Your task to perform on an android device: Add razer blade to the cart on newegg.com Image 0: 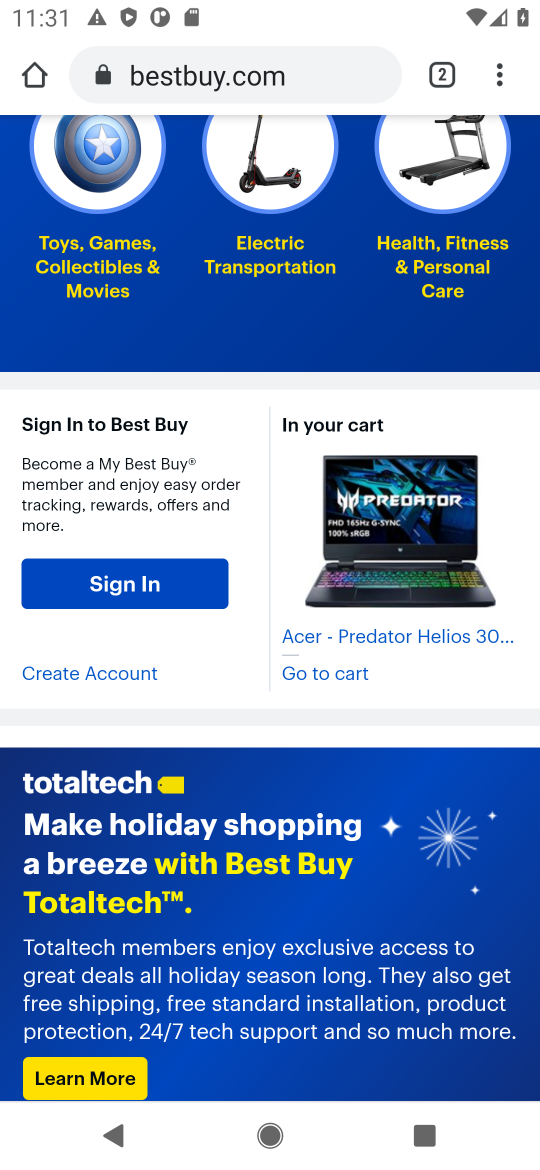
Step 0: task complete